Your task to perform on an android device: change the clock display to analog Image 0: 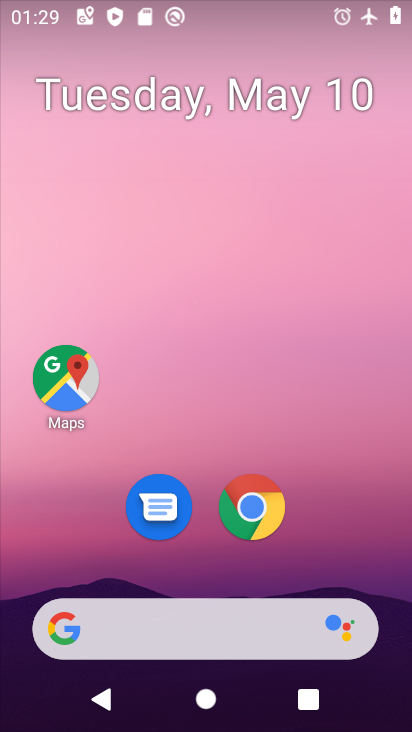
Step 0: drag from (176, 594) to (290, 253)
Your task to perform on an android device: change the clock display to analog Image 1: 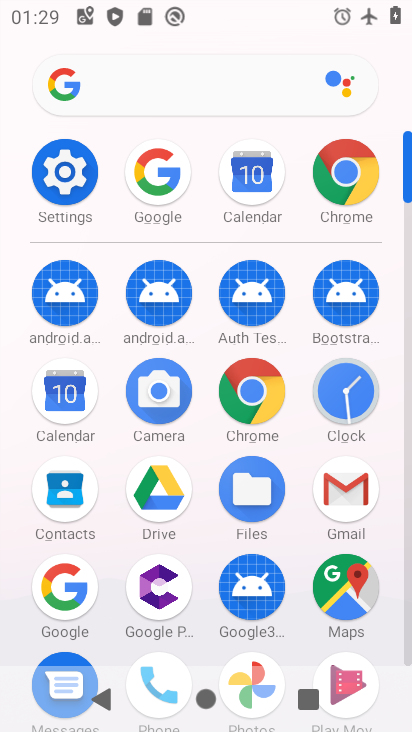
Step 1: click (345, 412)
Your task to perform on an android device: change the clock display to analog Image 2: 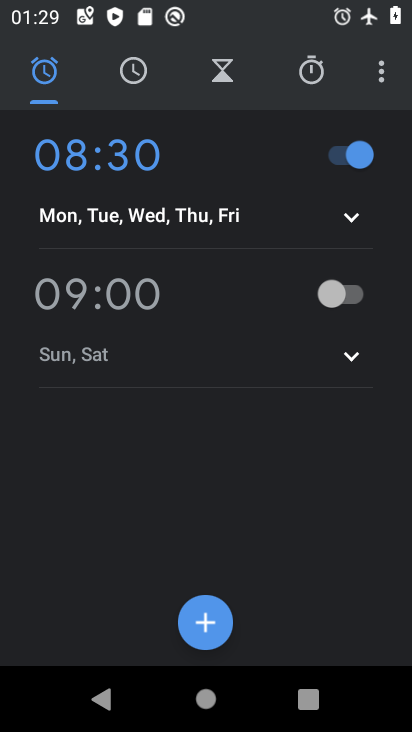
Step 2: click (382, 79)
Your task to perform on an android device: change the clock display to analog Image 3: 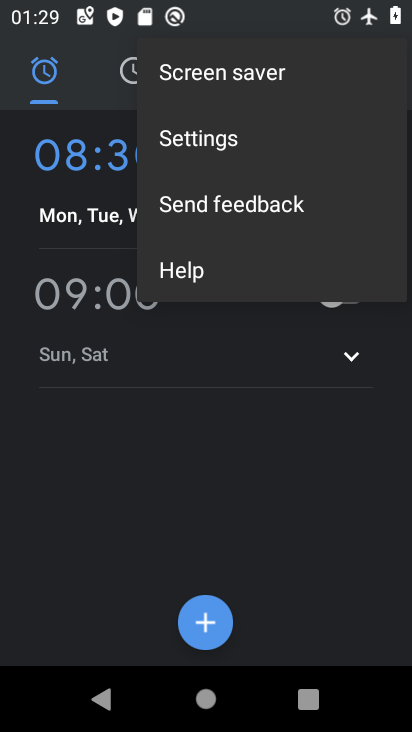
Step 3: click (218, 139)
Your task to perform on an android device: change the clock display to analog Image 4: 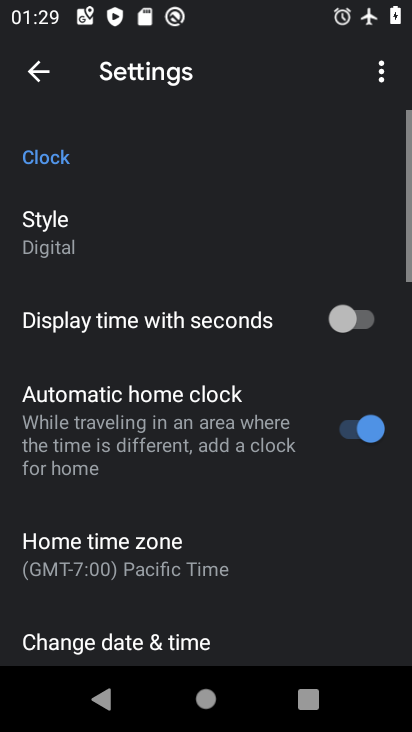
Step 4: click (57, 247)
Your task to perform on an android device: change the clock display to analog Image 5: 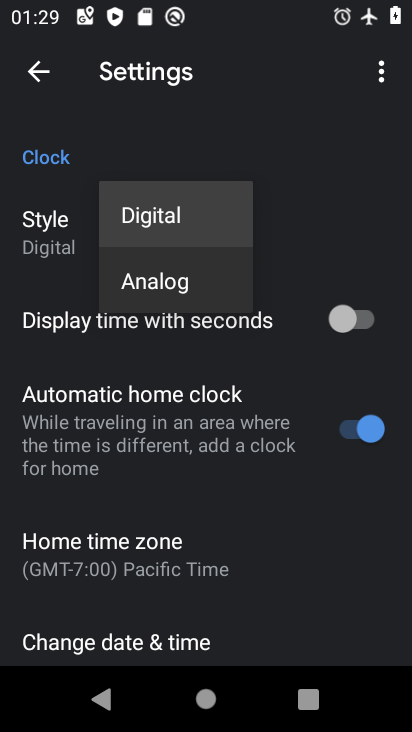
Step 5: click (143, 262)
Your task to perform on an android device: change the clock display to analog Image 6: 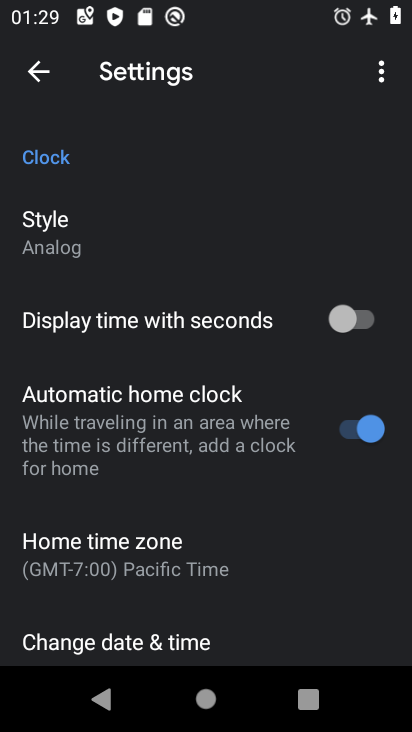
Step 6: task complete